Your task to perform on an android device: toggle location history Image 0: 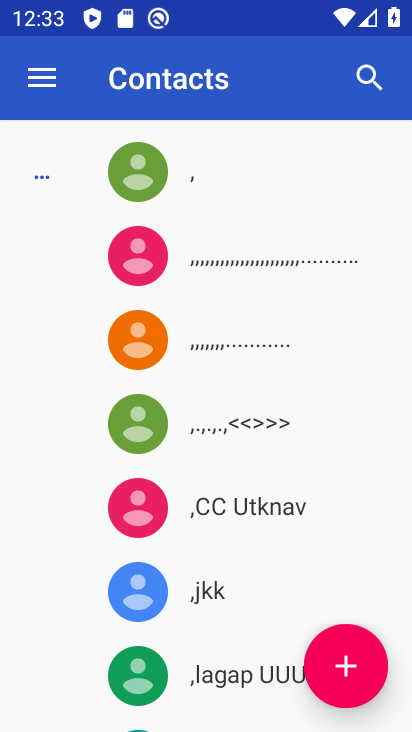
Step 0: press home button
Your task to perform on an android device: toggle location history Image 1: 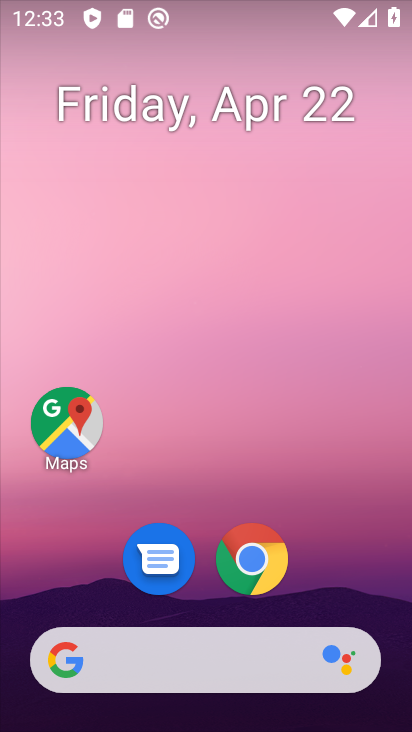
Step 1: drag from (361, 573) to (380, 176)
Your task to perform on an android device: toggle location history Image 2: 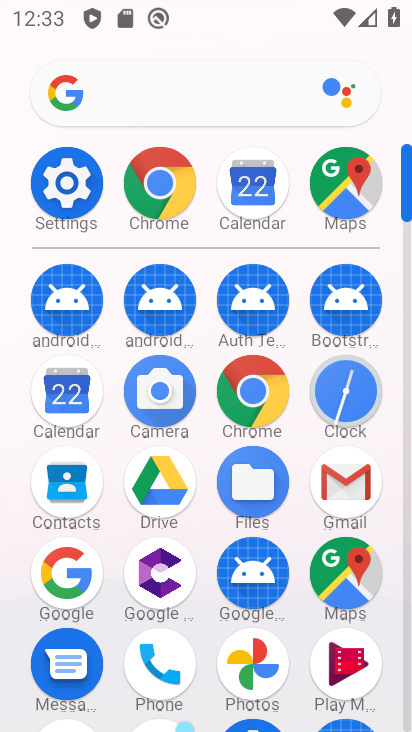
Step 2: click (74, 202)
Your task to perform on an android device: toggle location history Image 3: 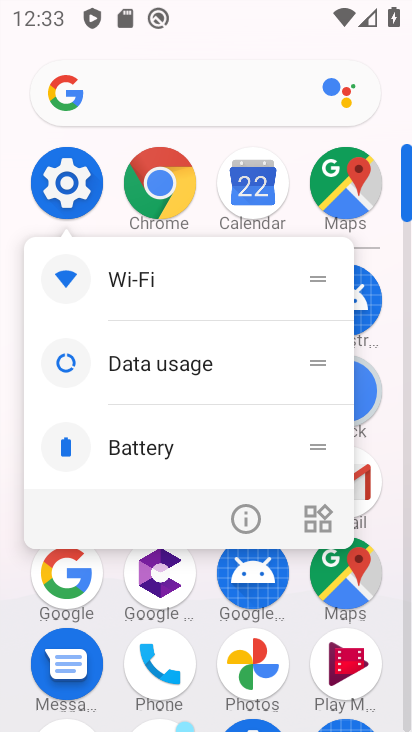
Step 3: click (74, 201)
Your task to perform on an android device: toggle location history Image 4: 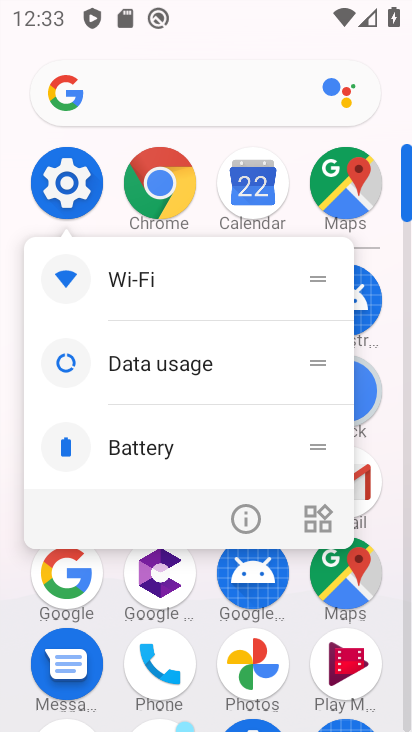
Step 4: click (75, 202)
Your task to perform on an android device: toggle location history Image 5: 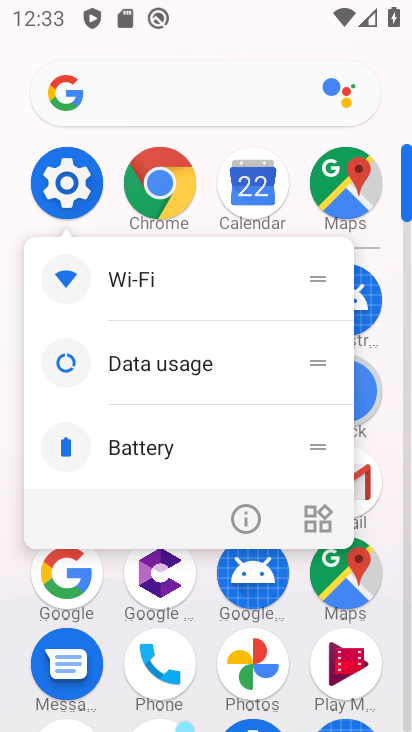
Step 5: click (63, 196)
Your task to perform on an android device: toggle location history Image 6: 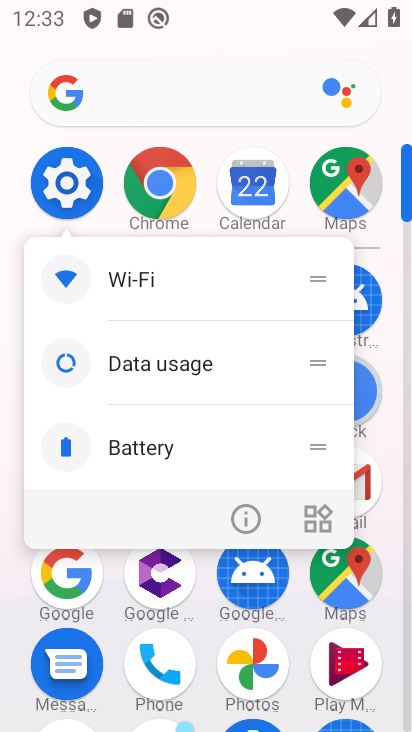
Step 6: click (83, 178)
Your task to perform on an android device: toggle location history Image 7: 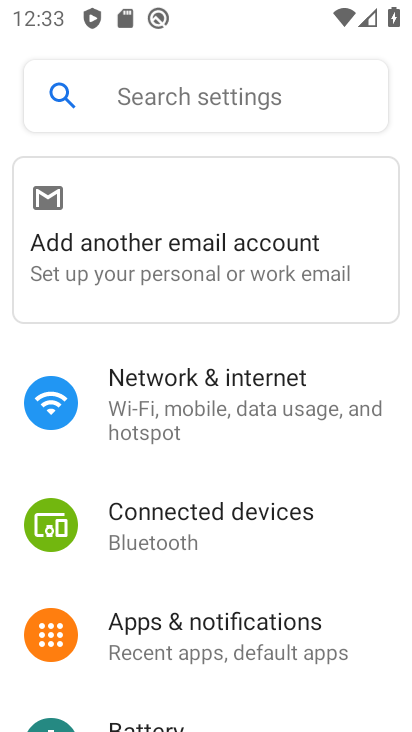
Step 7: drag from (369, 597) to (347, 473)
Your task to perform on an android device: toggle location history Image 8: 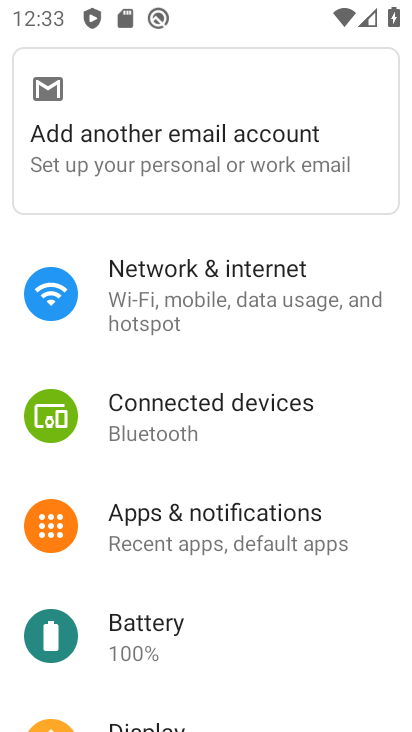
Step 8: drag from (369, 601) to (369, 427)
Your task to perform on an android device: toggle location history Image 9: 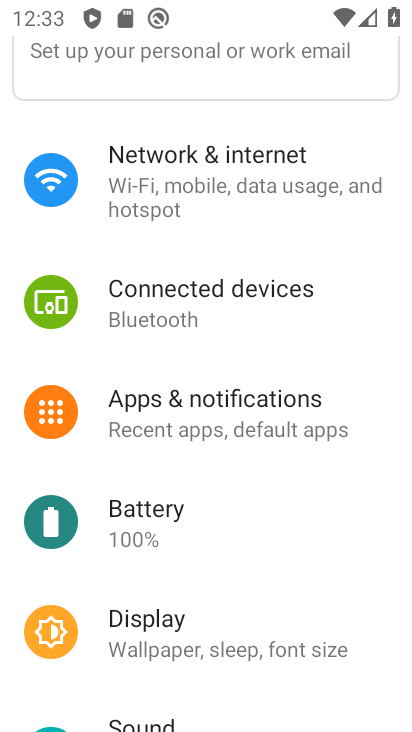
Step 9: drag from (377, 581) to (386, 407)
Your task to perform on an android device: toggle location history Image 10: 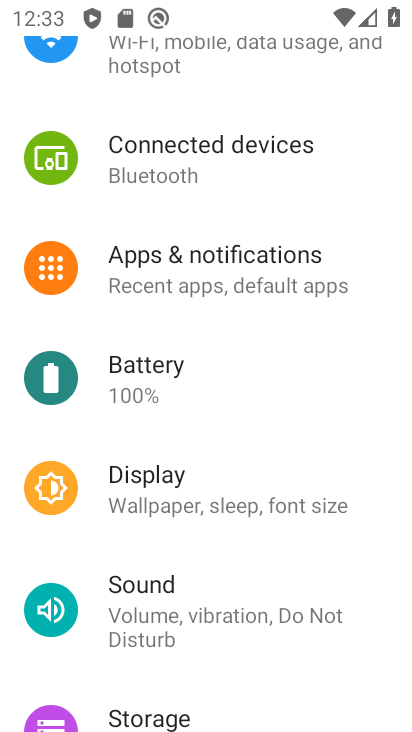
Step 10: drag from (359, 650) to (372, 474)
Your task to perform on an android device: toggle location history Image 11: 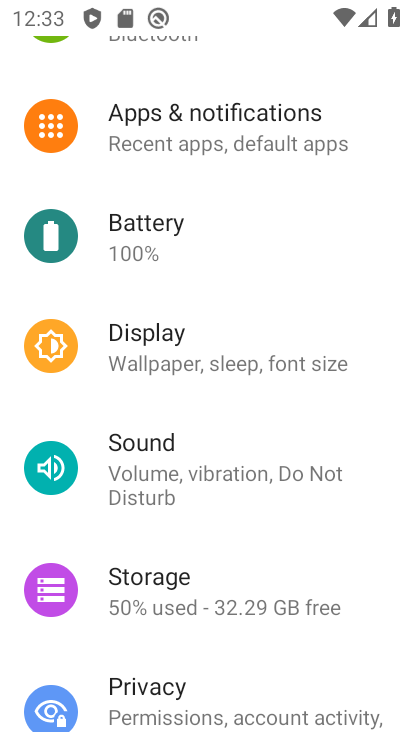
Step 11: drag from (366, 639) to (366, 470)
Your task to perform on an android device: toggle location history Image 12: 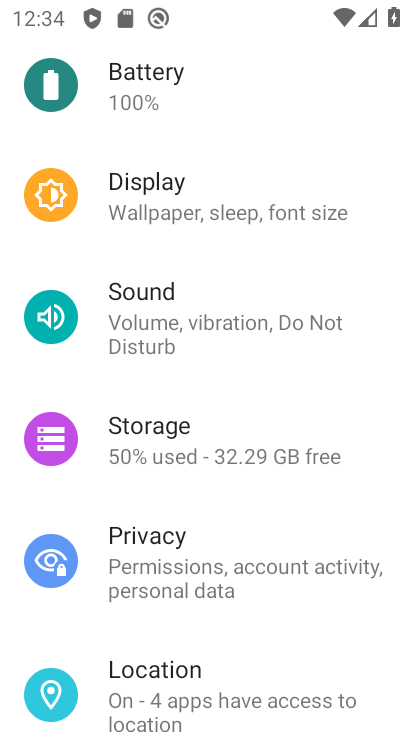
Step 12: drag from (364, 604) to (375, 460)
Your task to perform on an android device: toggle location history Image 13: 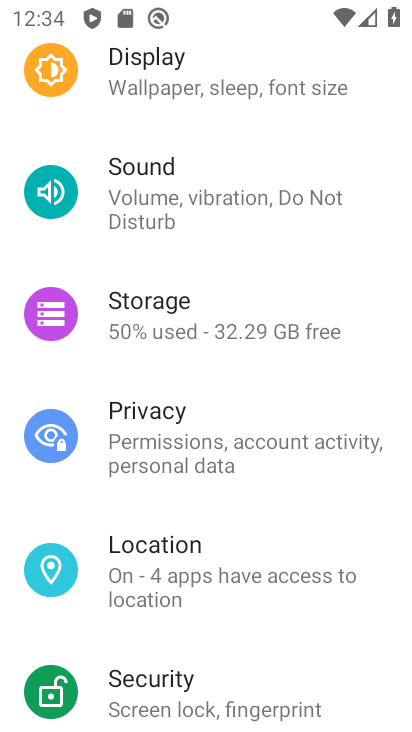
Step 13: drag from (354, 646) to (366, 505)
Your task to perform on an android device: toggle location history Image 14: 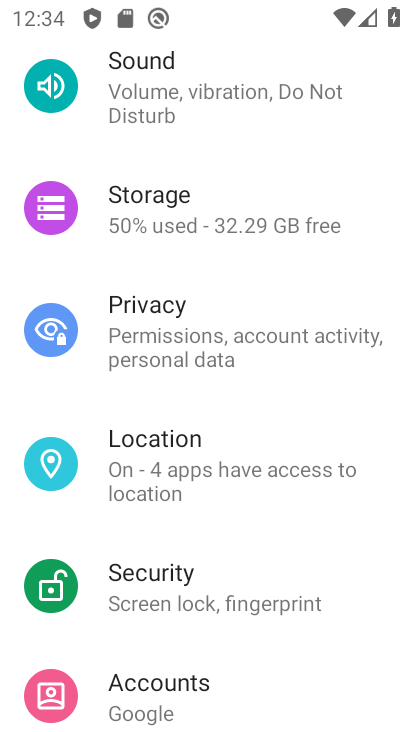
Step 14: click (172, 462)
Your task to perform on an android device: toggle location history Image 15: 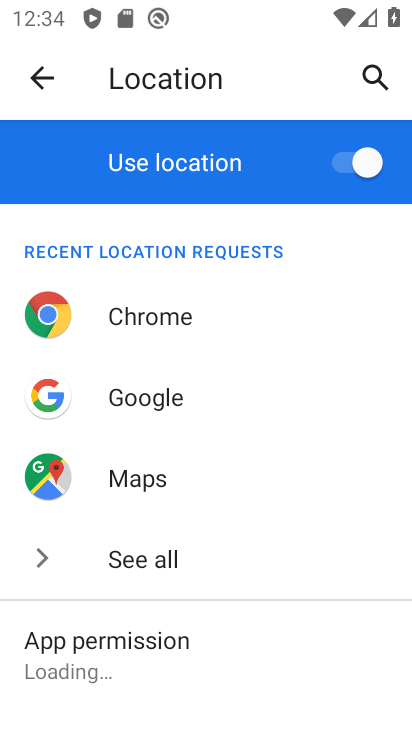
Step 15: drag from (297, 615) to (282, 372)
Your task to perform on an android device: toggle location history Image 16: 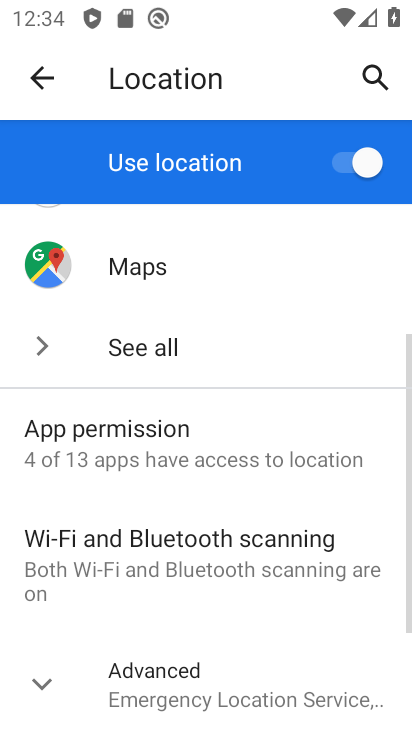
Step 16: drag from (282, 628) to (315, 385)
Your task to perform on an android device: toggle location history Image 17: 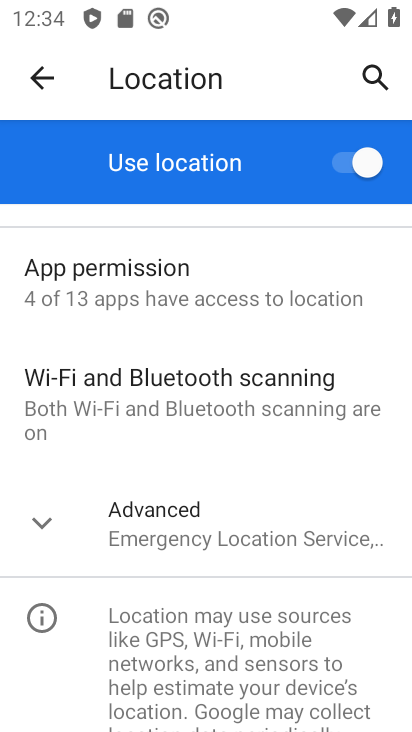
Step 17: click (261, 552)
Your task to perform on an android device: toggle location history Image 18: 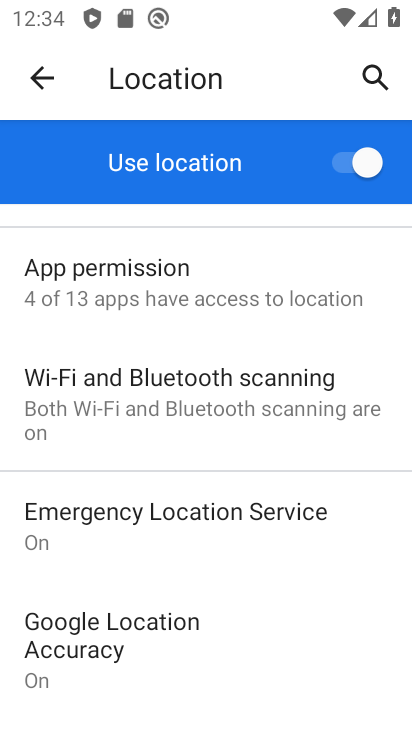
Step 18: drag from (294, 633) to (297, 437)
Your task to perform on an android device: toggle location history Image 19: 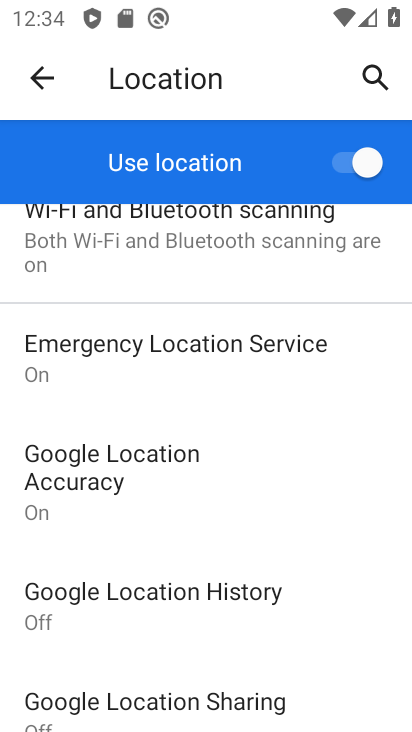
Step 19: drag from (326, 639) to (319, 514)
Your task to perform on an android device: toggle location history Image 20: 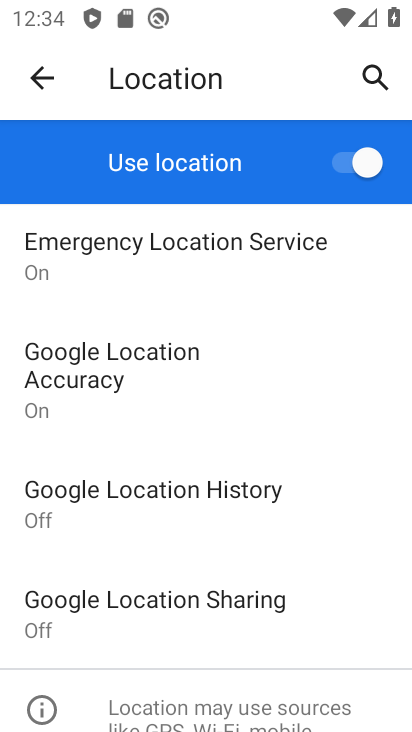
Step 20: click (238, 498)
Your task to perform on an android device: toggle location history Image 21: 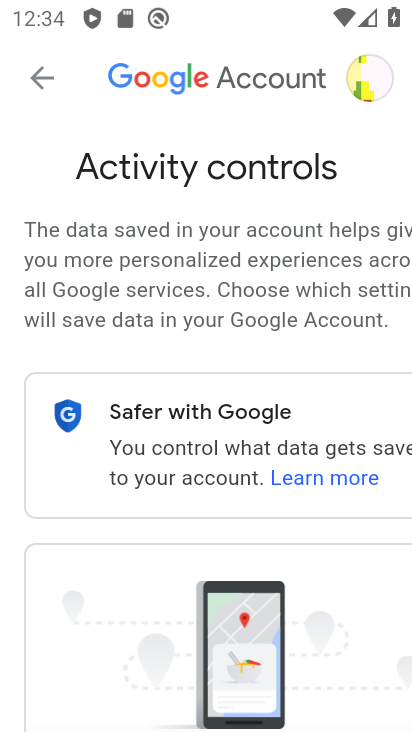
Step 21: drag from (325, 613) to (328, 437)
Your task to perform on an android device: toggle location history Image 22: 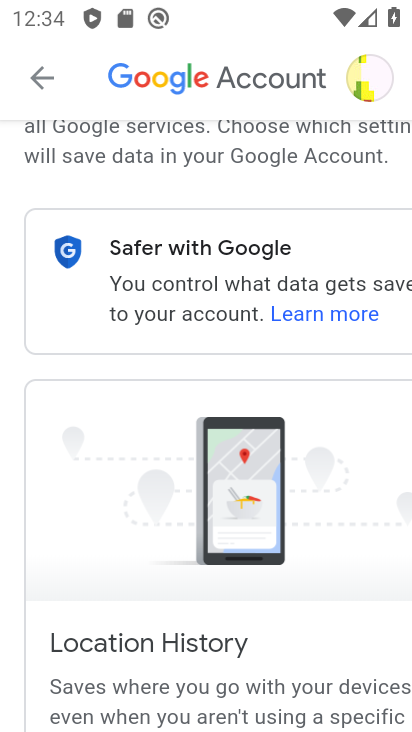
Step 22: drag from (307, 617) to (307, 427)
Your task to perform on an android device: toggle location history Image 23: 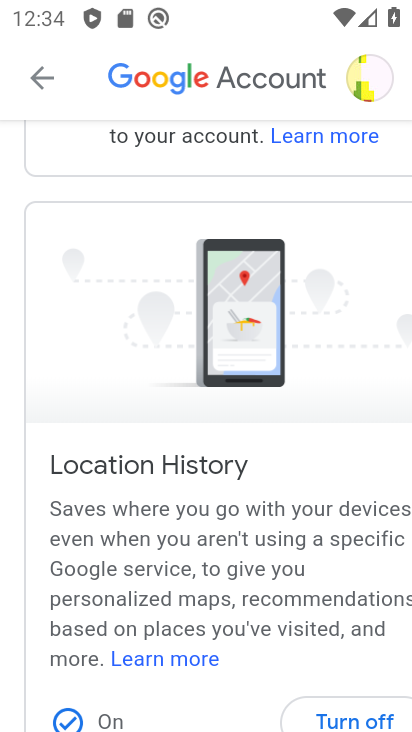
Step 23: drag from (257, 626) to (254, 465)
Your task to perform on an android device: toggle location history Image 24: 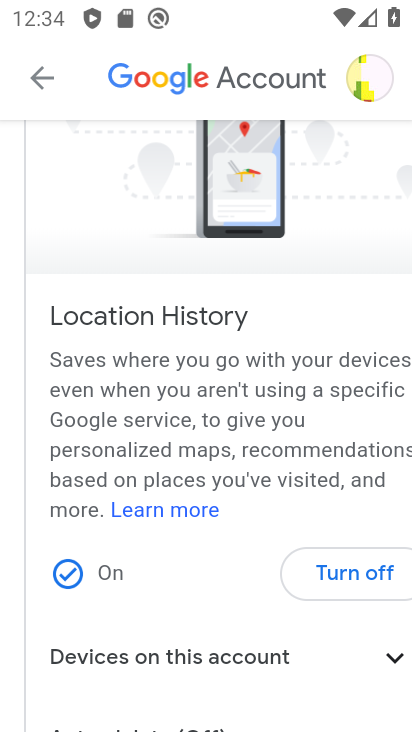
Step 24: click (343, 573)
Your task to perform on an android device: toggle location history Image 25: 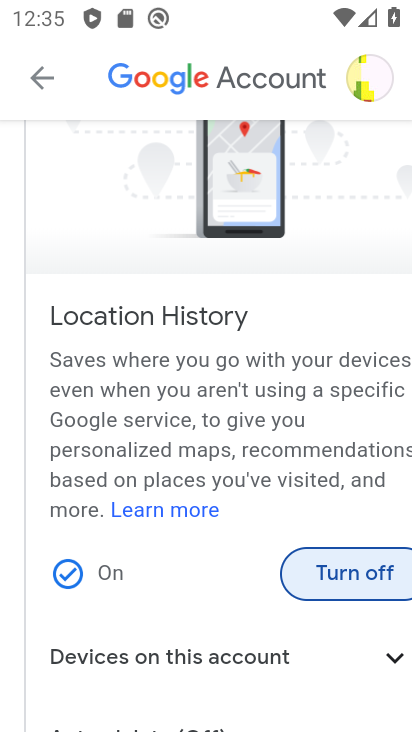
Step 25: click (326, 574)
Your task to perform on an android device: toggle location history Image 26: 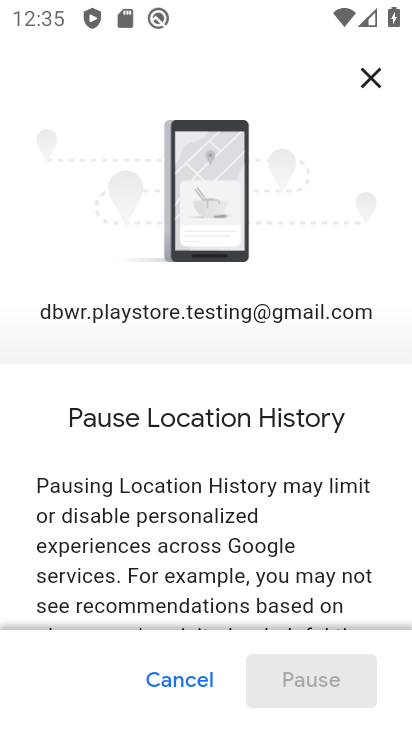
Step 26: drag from (325, 546) to (337, 354)
Your task to perform on an android device: toggle location history Image 27: 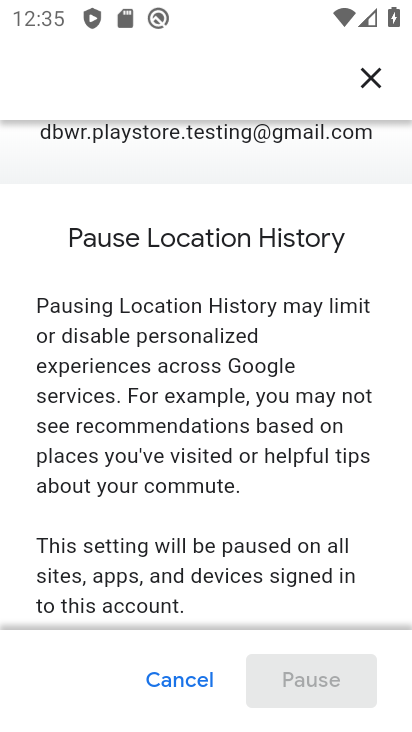
Step 27: drag from (297, 579) to (326, 366)
Your task to perform on an android device: toggle location history Image 28: 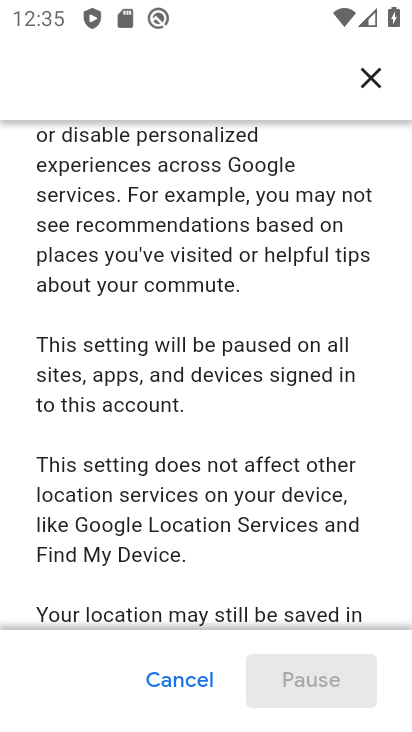
Step 28: drag from (358, 570) to (404, 212)
Your task to perform on an android device: toggle location history Image 29: 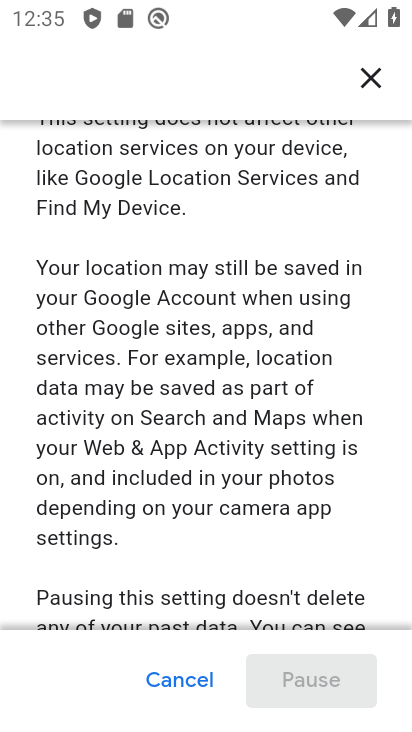
Step 29: drag from (328, 534) to (363, 297)
Your task to perform on an android device: toggle location history Image 30: 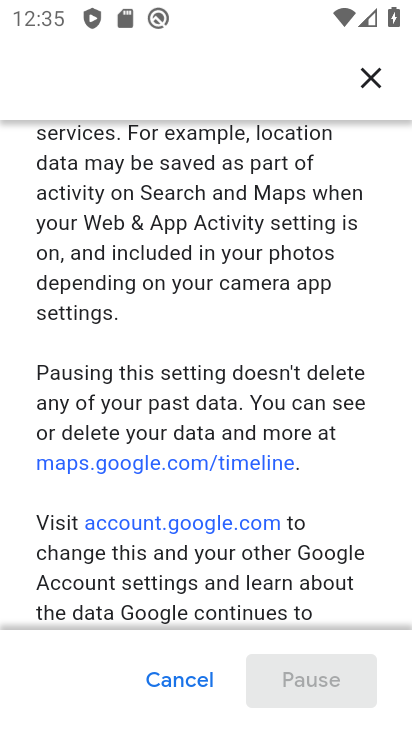
Step 30: drag from (347, 580) to (363, 320)
Your task to perform on an android device: toggle location history Image 31: 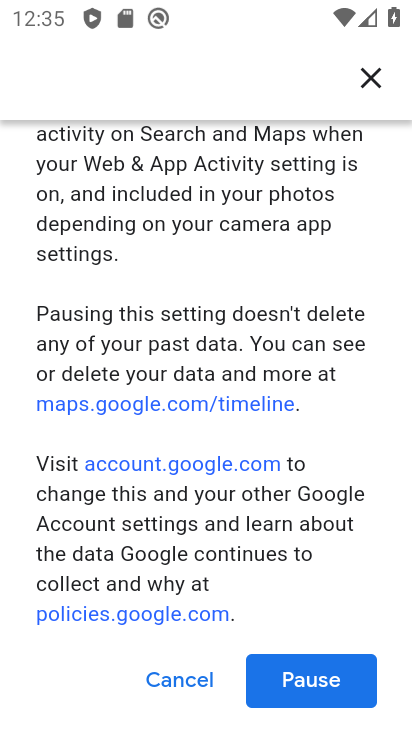
Step 31: click (325, 688)
Your task to perform on an android device: toggle location history Image 32: 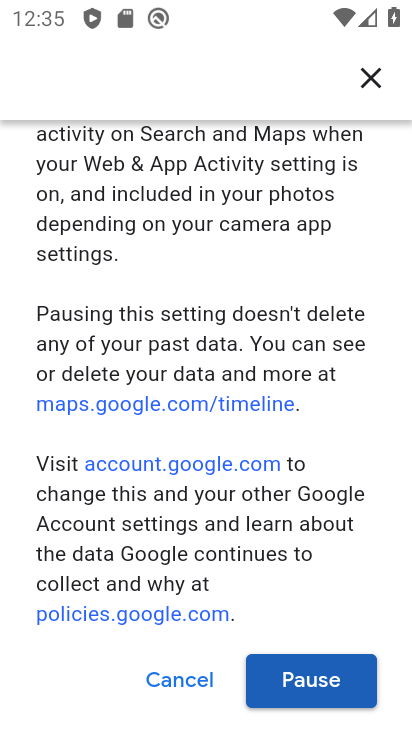
Step 32: click (343, 694)
Your task to perform on an android device: toggle location history Image 33: 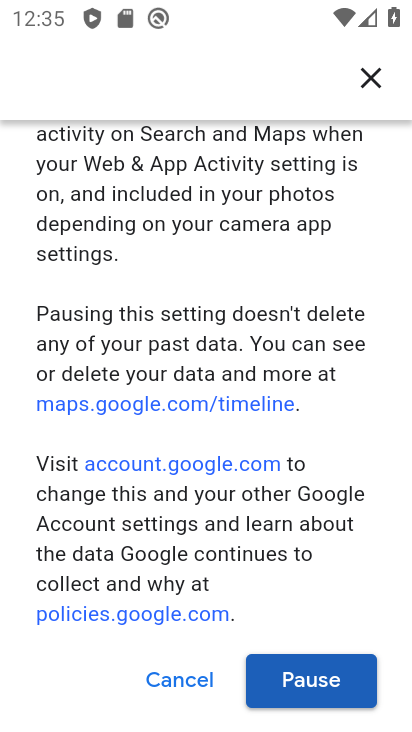
Step 33: click (327, 681)
Your task to perform on an android device: toggle location history Image 34: 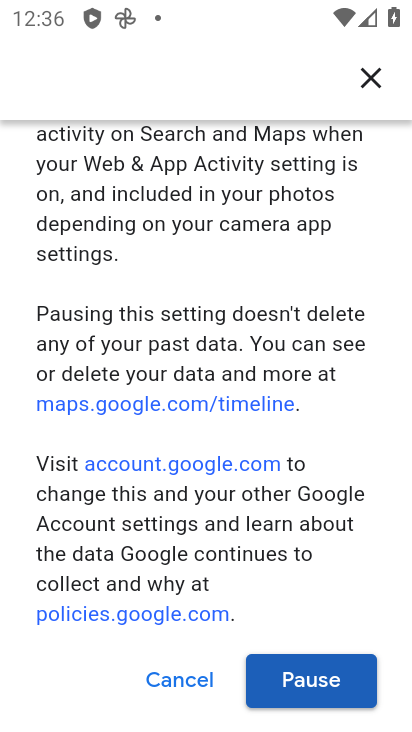
Step 34: click (335, 673)
Your task to perform on an android device: toggle location history Image 35: 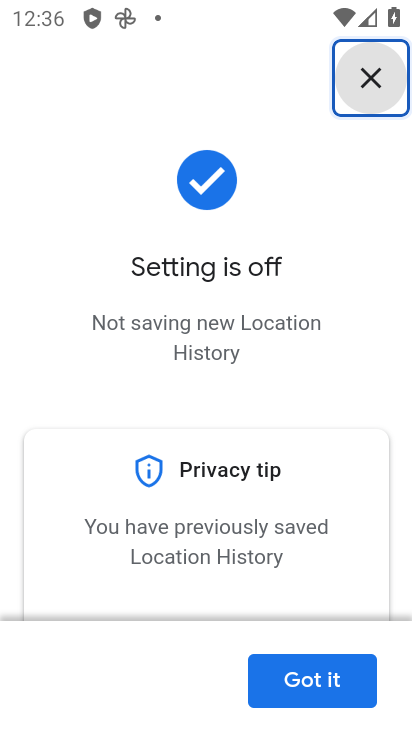
Step 35: task complete